Your task to perform on an android device: Open calendar and show me the second week of next month Image 0: 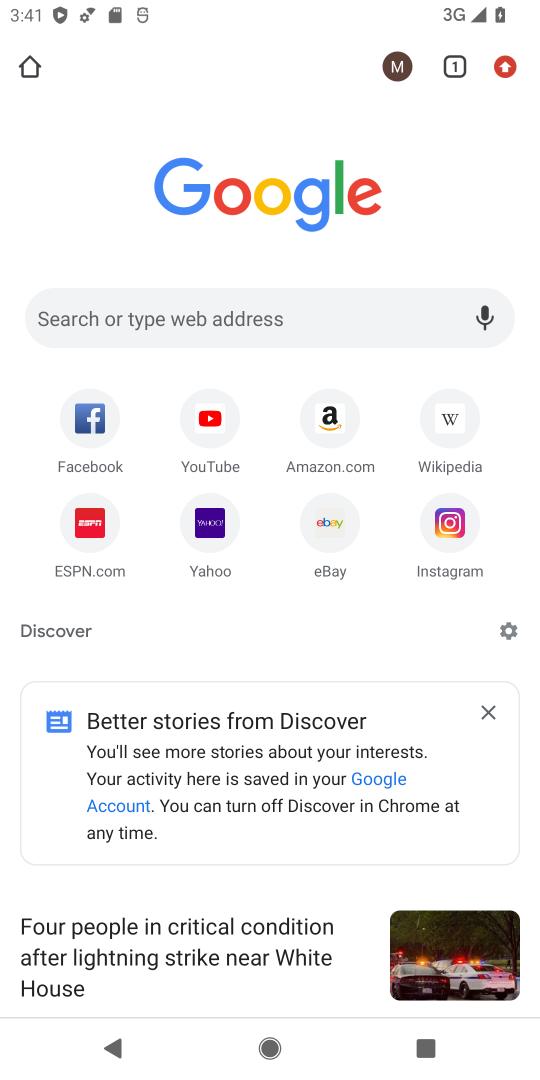
Step 0: press home button
Your task to perform on an android device: Open calendar and show me the second week of next month Image 1: 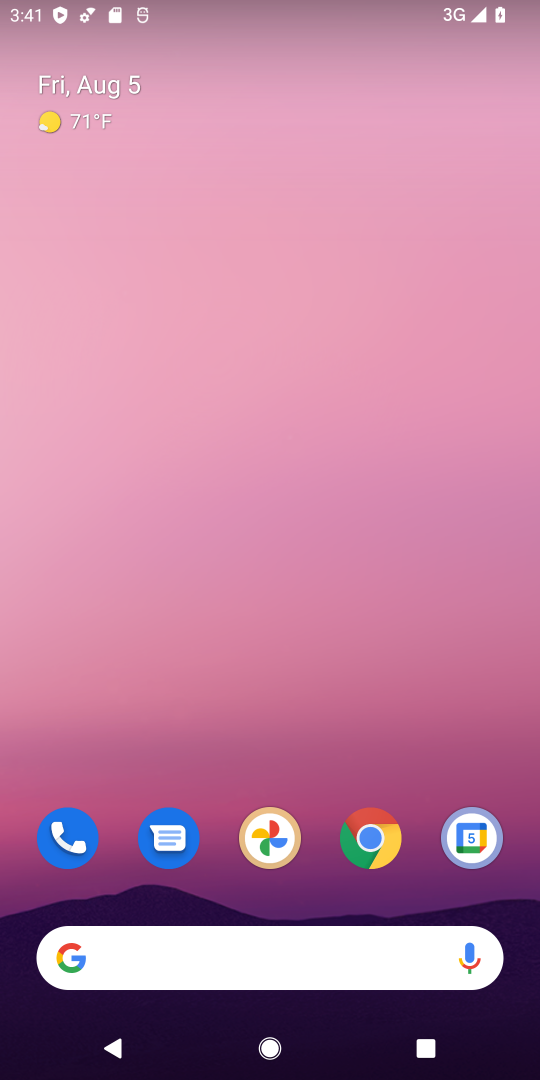
Step 1: drag from (291, 780) to (429, 82)
Your task to perform on an android device: Open calendar and show me the second week of next month Image 2: 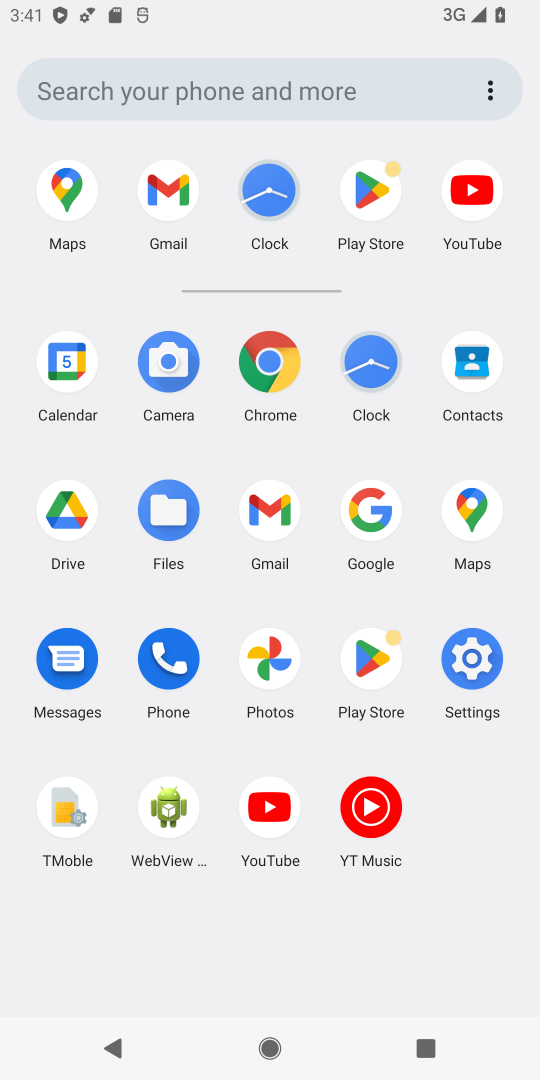
Step 2: click (65, 364)
Your task to perform on an android device: Open calendar and show me the second week of next month Image 3: 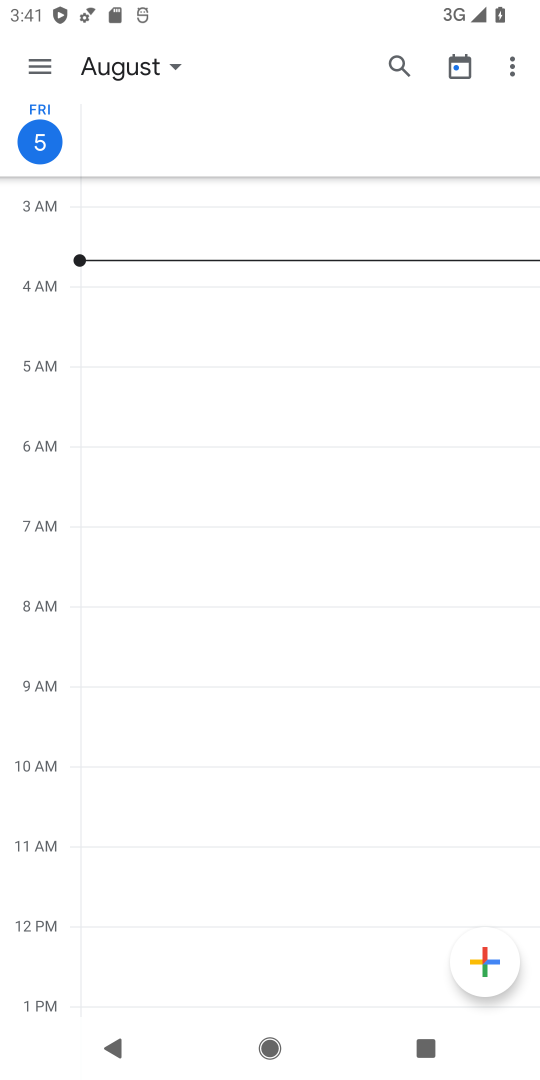
Step 3: click (57, 64)
Your task to perform on an android device: Open calendar and show me the second week of next month Image 4: 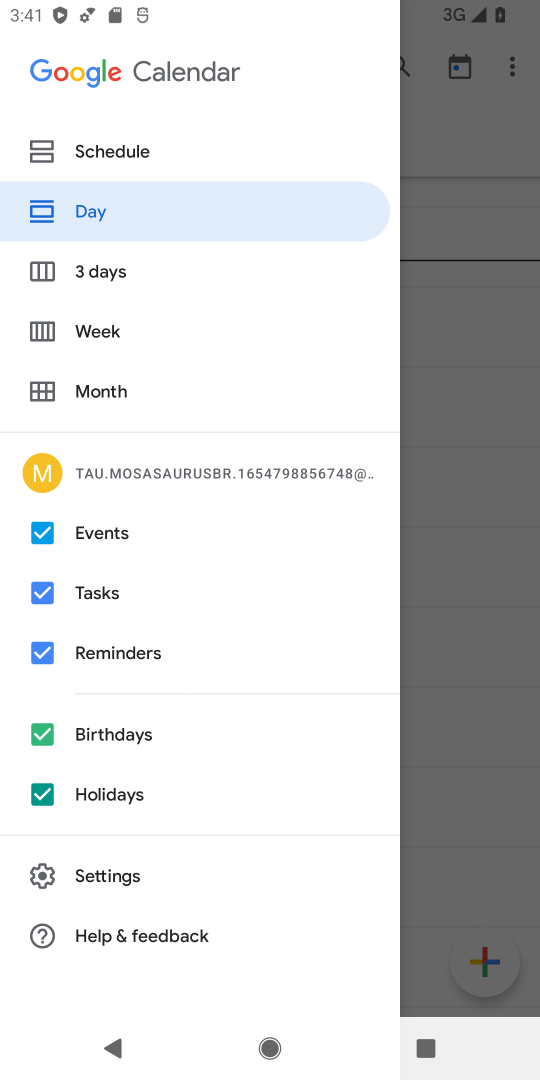
Step 4: click (148, 328)
Your task to perform on an android device: Open calendar and show me the second week of next month Image 5: 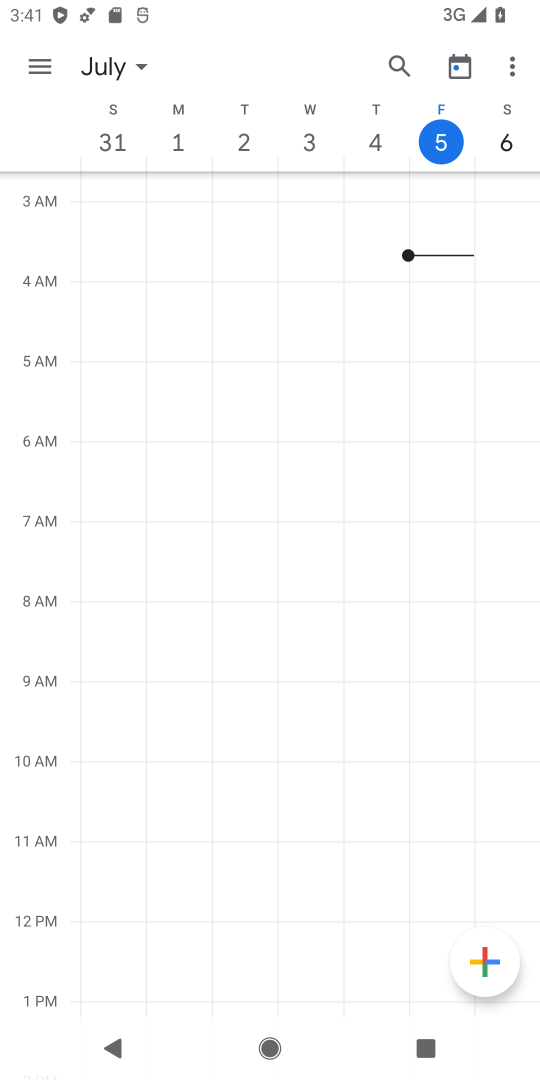
Step 5: task complete